Your task to perform on an android device: change your default location settings in chrome Image 0: 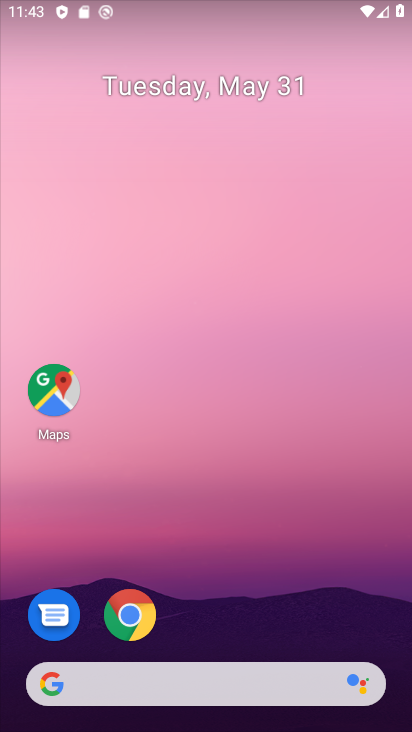
Step 0: drag from (216, 670) to (215, 38)
Your task to perform on an android device: change your default location settings in chrome Image 1: 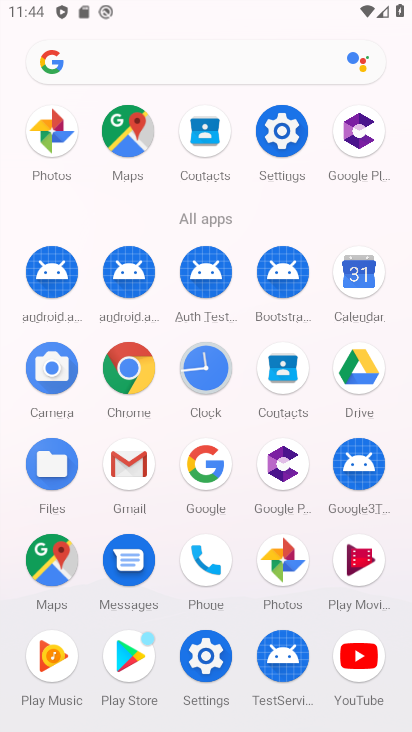
Step 1: click (134, 361)
Your task to perform on an android device: change your default location settings in chrome Image 2: 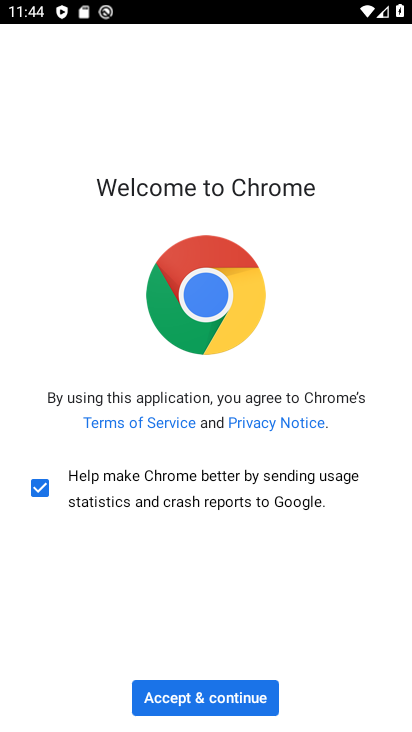
Step 2: click (263, 684)
Your task to perform on an android device: change your default location settings in chrome Image 3: 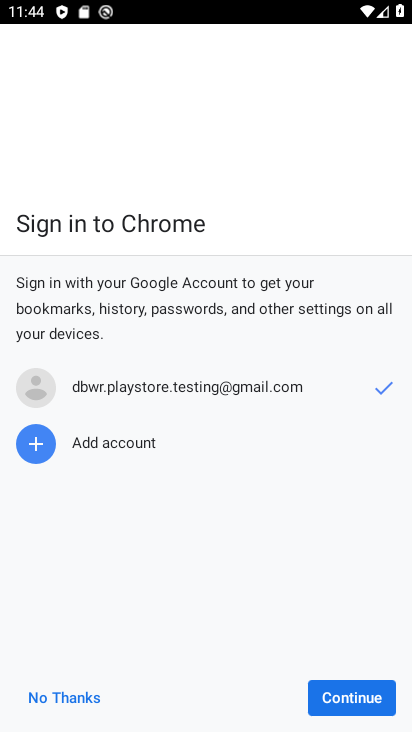
Step 3: click (70, 698)
Your task to perform on an android device: change your default location settings in chrome Image 4: 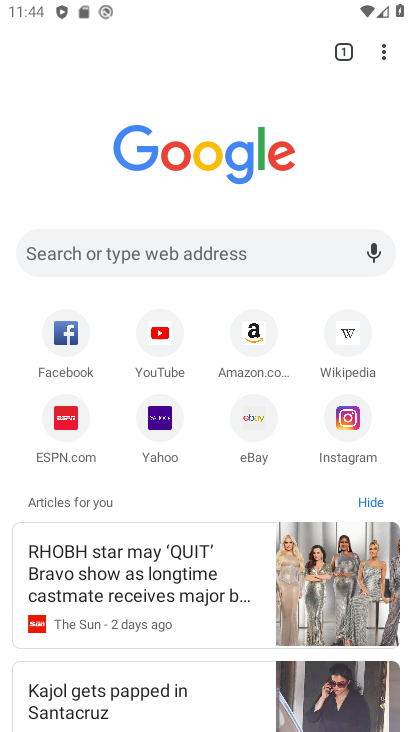
Step 4: drag from (382, 52) to (209, 443)
Your task to perform on an android device: change your default location settings in chrome Image 5: 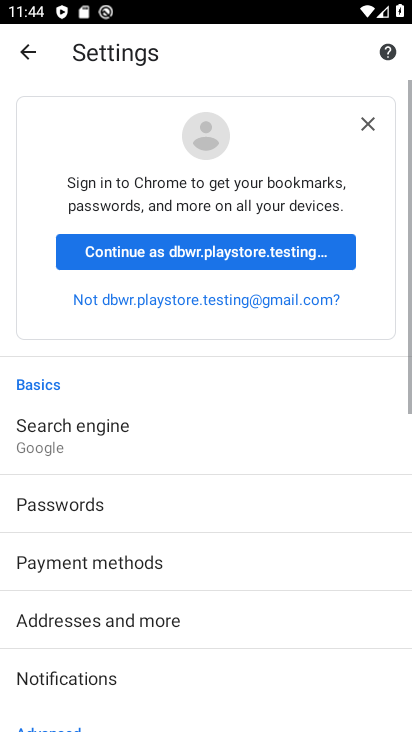
Step 5: drag from (187, 598) to (232, 104)
Your task to perform on an android device: change your default location settings in chrome Image 6: 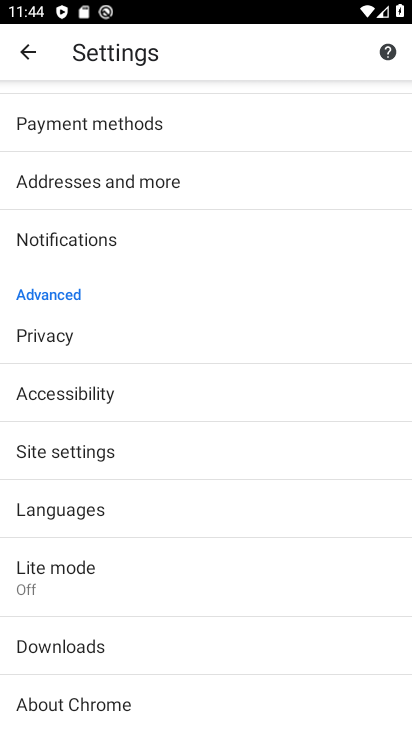
Step 6: drag from (105, 597) to (139, 395)
Your task to perform on an android device: change your default location settings in chrome Image 7: 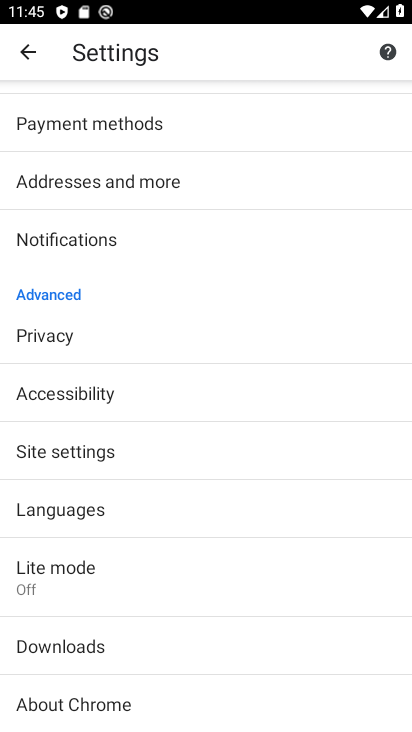
Step 7: click (92, 450)
Your task to perform on an android device: change your default location settings in chrome Image 8: 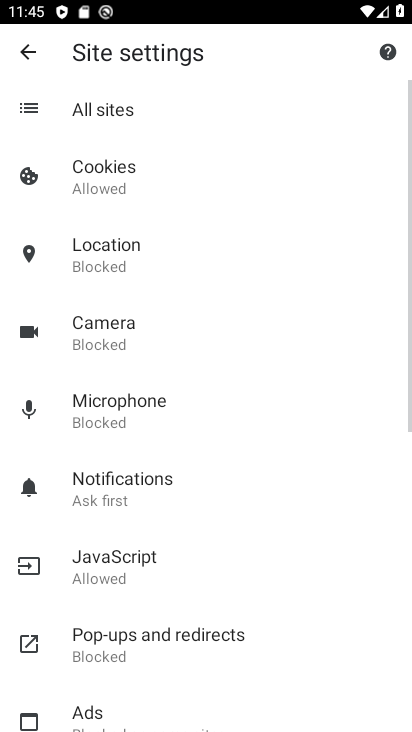
Step 8: click (111, 242)
Your task to perform on an android device: change your default location settings in chrome Image 9: 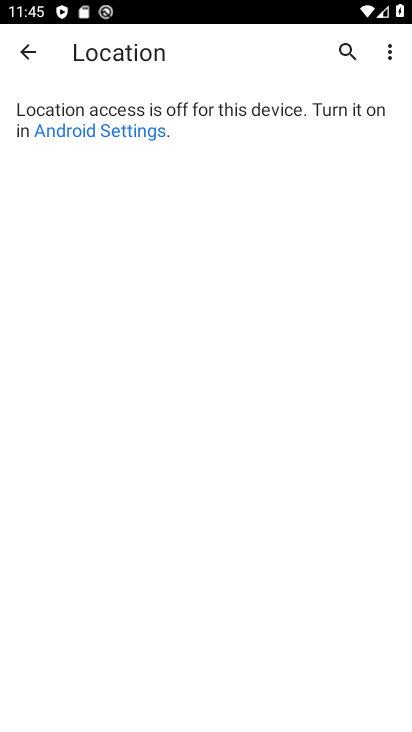
Step 9: task complete